Your task to perform on an android device: create a new album in the google photos Image 0: 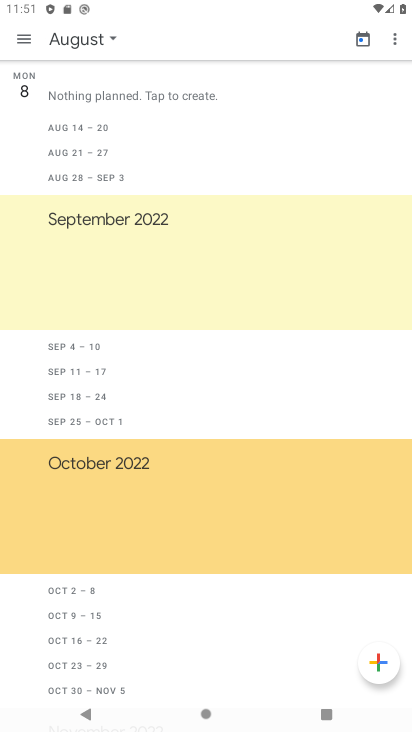
Step 0: press home button
Your task to perform on an android device: create a new album in the google photos Image 1: 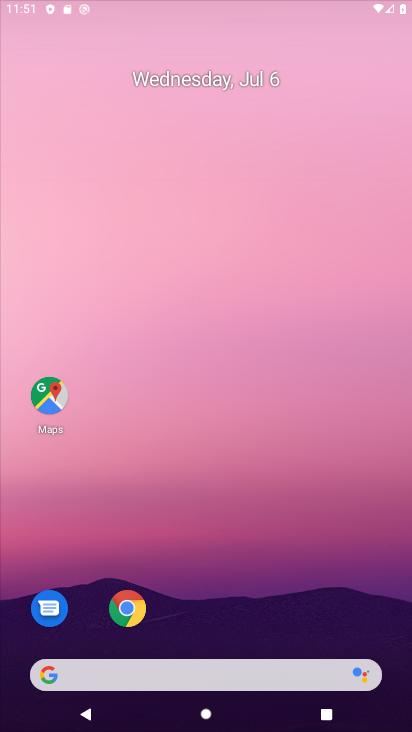
Step 1: drag from (208, 567) to (308, 0)
Your task to perform on an android device: create a new album in the google photos Image 2: 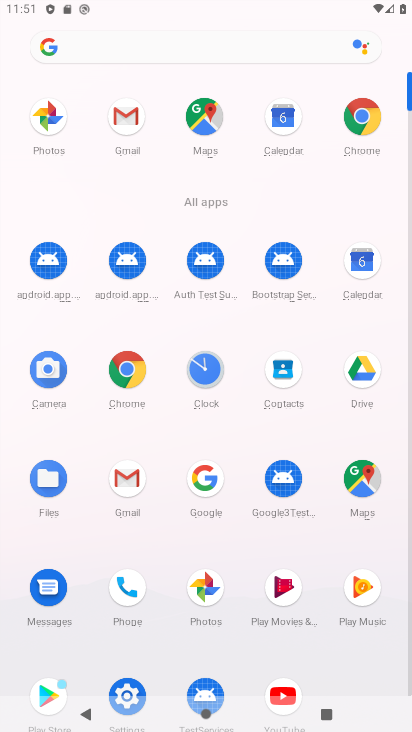
Step 2: click (215, 609)
Your task to perform on an android device: create a new album in the google photos Image 3: 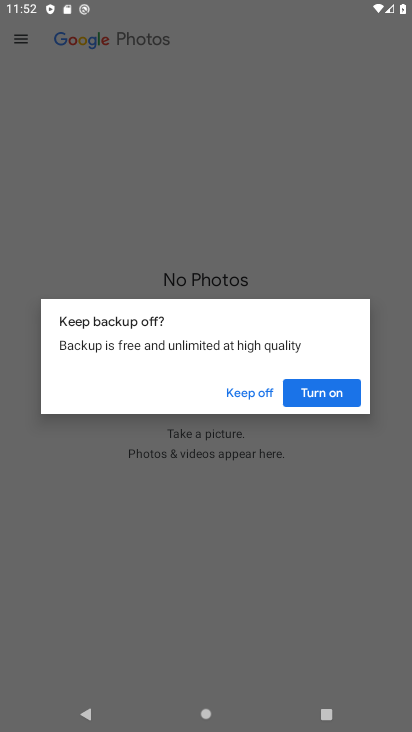
Step 3: task complete